Your task to perform on an android device: Is it going to rain this weekend? Image 0: 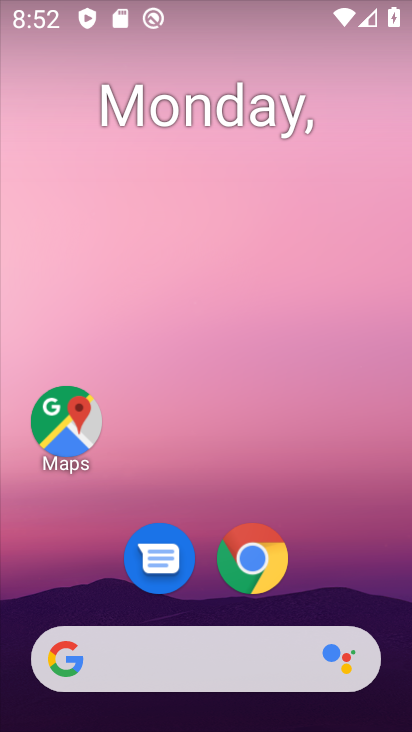
Step 0: drag from (331, 574) to (358, 122)
Your task to perform on an android device: Is it going to rain this weekend? Image 1: 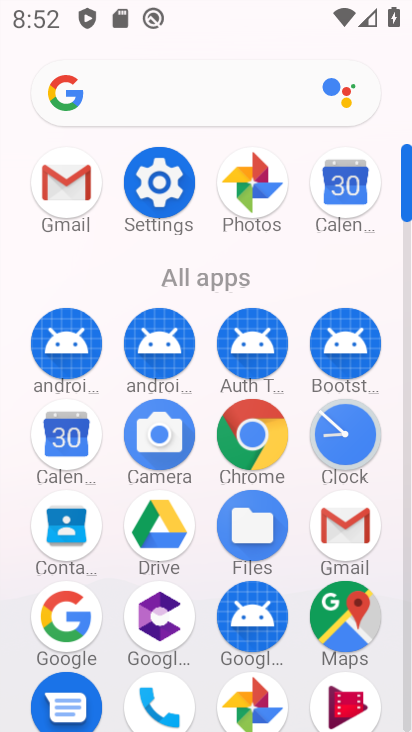
Step 1: click (251, 422)
Your task to perform on an android device: Is it going to rain this weekend? Image 2: 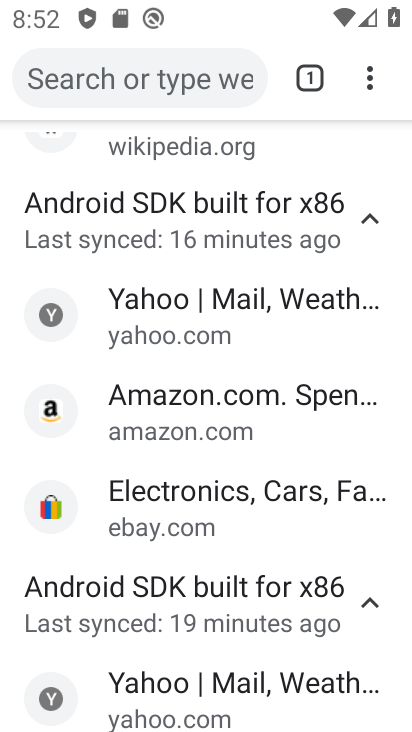
Step 2: click (134, 83)
Your task to perform on an android device: Is it going to rain this weekend? Image 3: 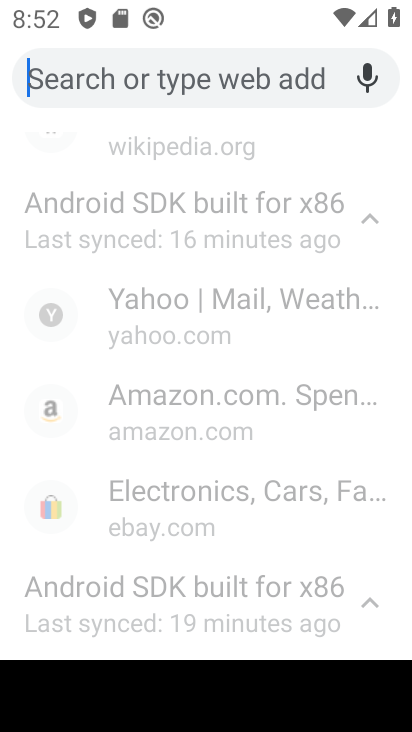
Step 3: type "Is it going to rain this weekend?"
Your task to perform on an android device: Is it going to rain this weekend? Image 4: 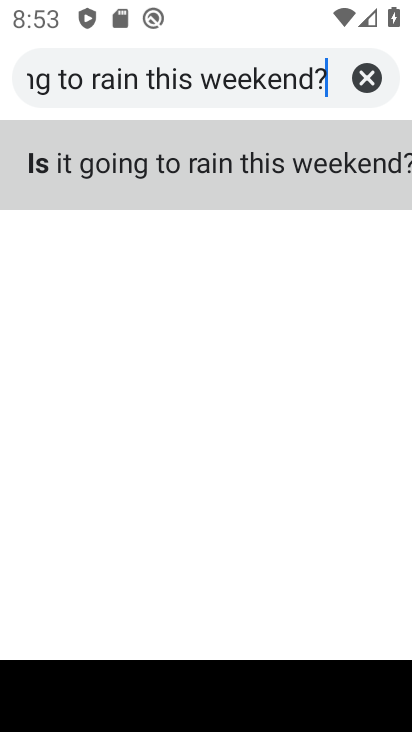
Step 4: click (281, 159)
Your task to perform on an android device: Is it going to rain this weekend? Image 5: 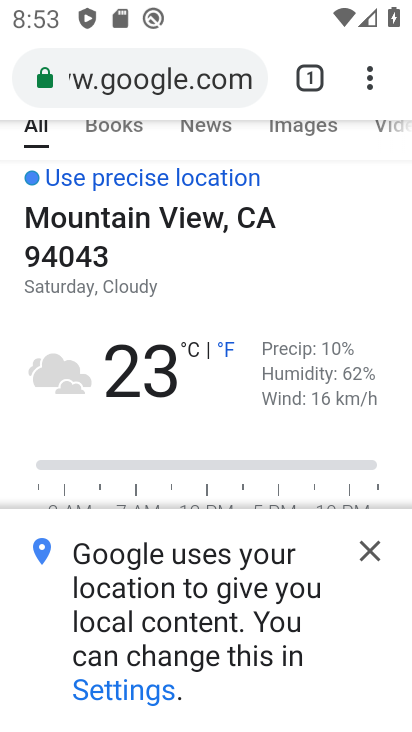
Step 5: click (370, 548)
Your task to perform on an android device: Is it going to rain this weekend? Image 6: 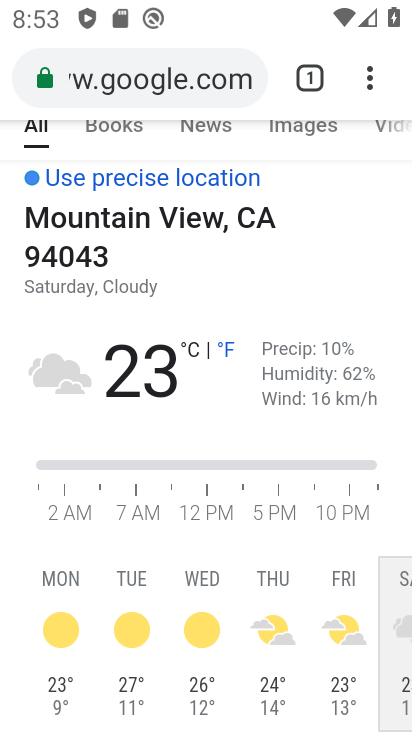
Step 6: task complete